Your task to perform on an android device: Open the calendar app, open the side menu, and click the "Day" option Image 0: 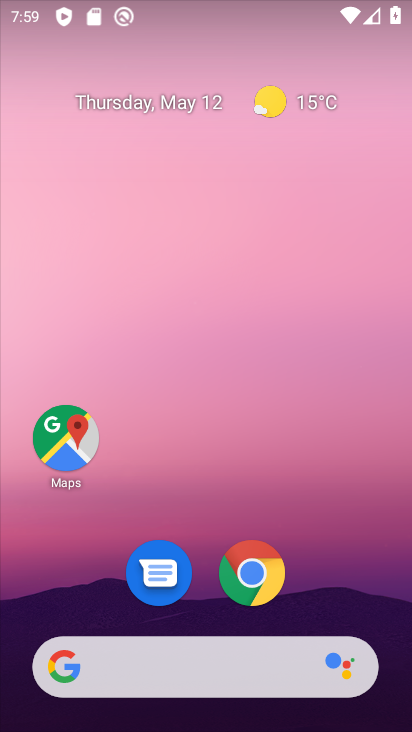
Step 0: drag from (321, 573) to (156, 15)
Your task to perform on an android device: Open the calendar app, open the side menu, and click the "Day" option Image 1: 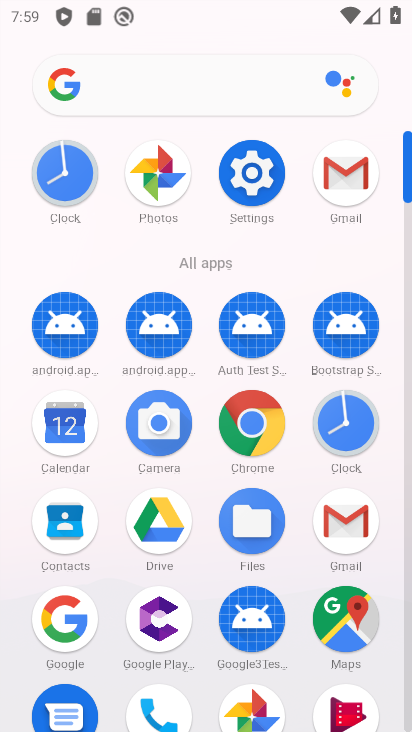
Step 1: click (68, 421)
Your task to perform on an android device: Open the calendar app, open the side menu, and click the "Day" option Image 2: 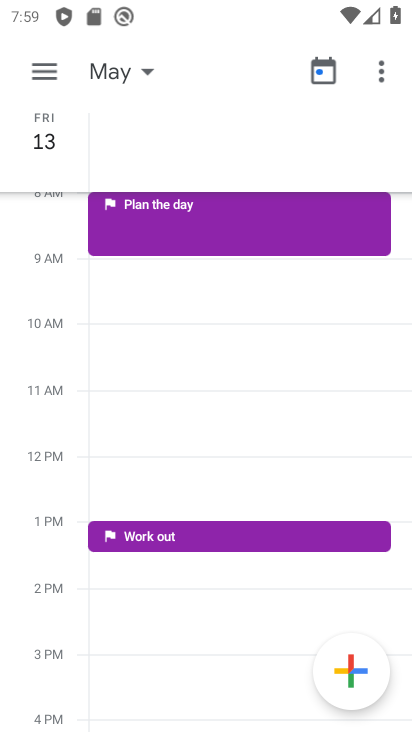
Step 2: click (46, 65)
Your task to perform on an android device: Open the calendar app, open the side menu, and click the "Day" option Image 3: 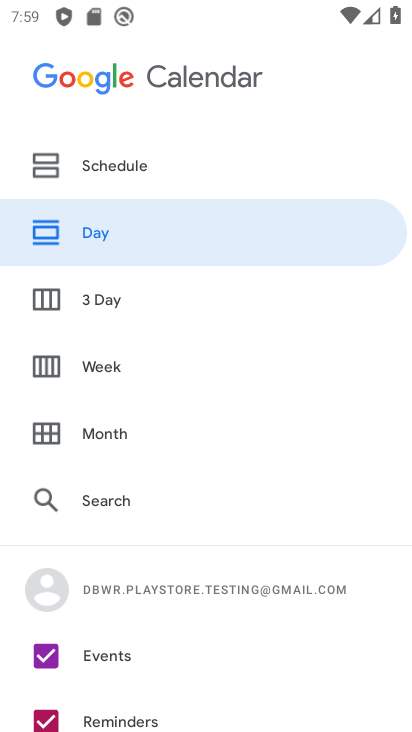
Step 3: click (94, 236)
Your task to perform on an android device: Open the calendar app, open the side menu, and click the "Day" option Image 4: 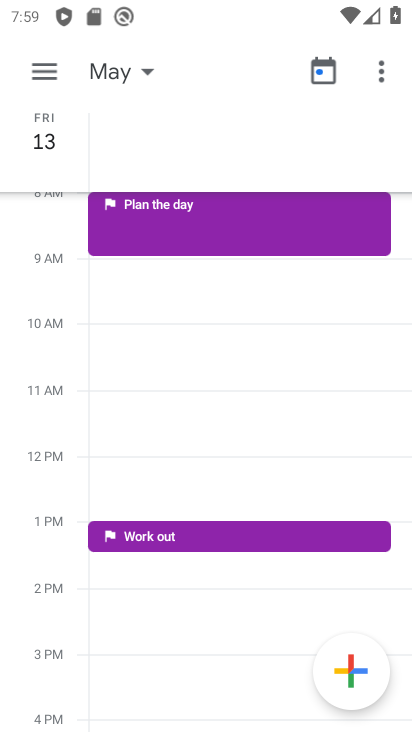
Step 4: task complete